Your task to perform on an android device: toggle priority inbox in the gmail app Image 0: 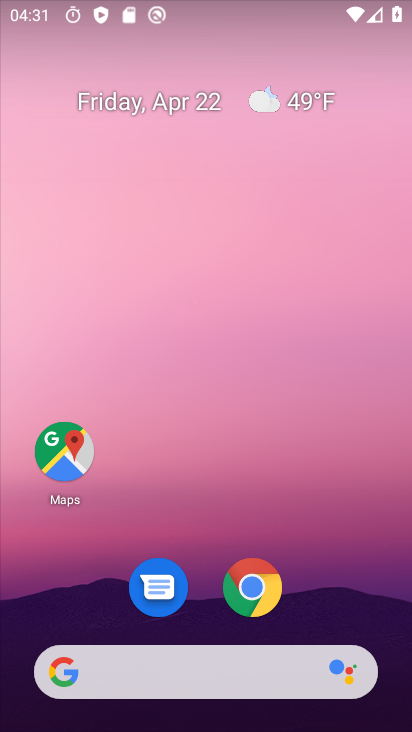
Step 0: drag from (363, 608) to (408, 473)
Your task to perform on an android device: toggle priority inbox in the gmail app Image 1: 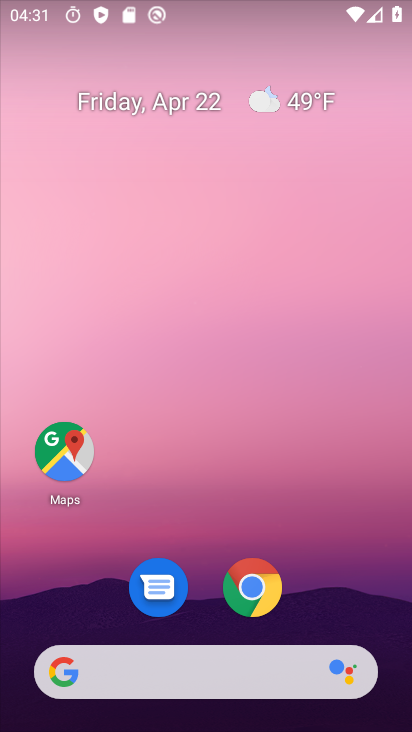
Step 1: drag from (349, 626) to (363, 6)
Your task to perform on an android device: toggle priority inbox in the gmail app Image 2: 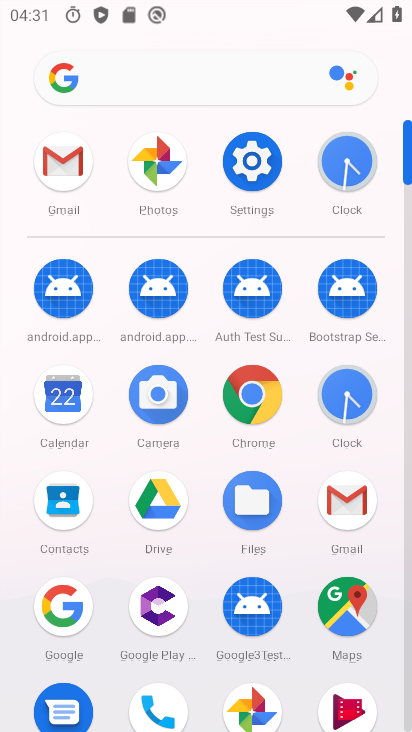
Step 2: click (349, 503)
Your task to perform on an android device: toggle priority inbox in the gmail app Image 3: 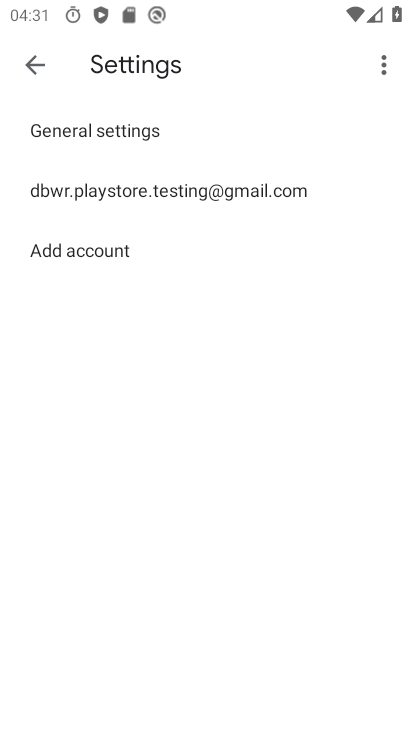
Step 3: click (86, 195)
Your task to perform on an android device: toggle priority inbox in the gmail app Image 4: 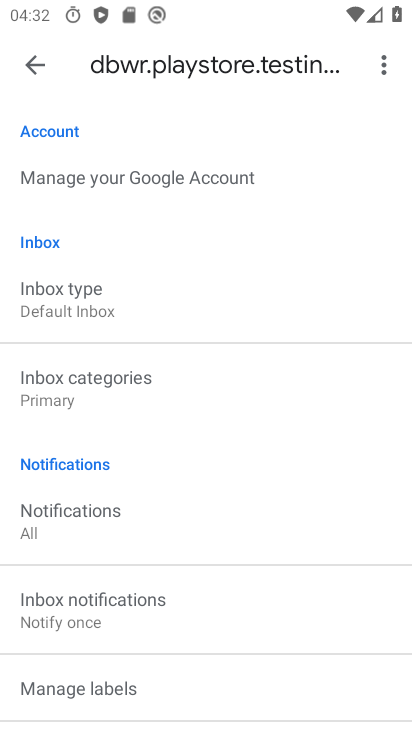
Step 4: click (66, 300)
Your task to perform on an android device: toggle priority inbox in the gmail app Image 5: 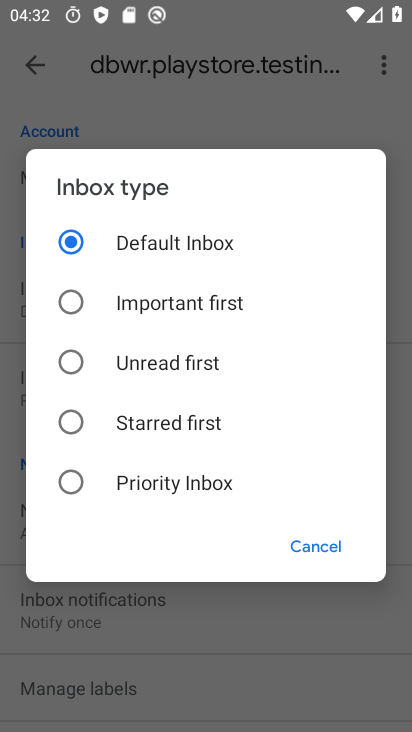
Step 5: click (59, 482)
Your task to perform on an android device: toggle priority inbox in the gmail app Image 6: 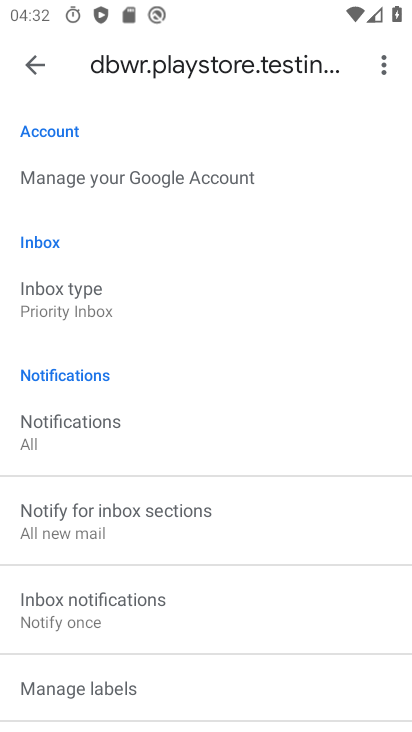
Step 6: task complete